Your task to perform on an android device: add a label to a message in the gmail app Image 0: 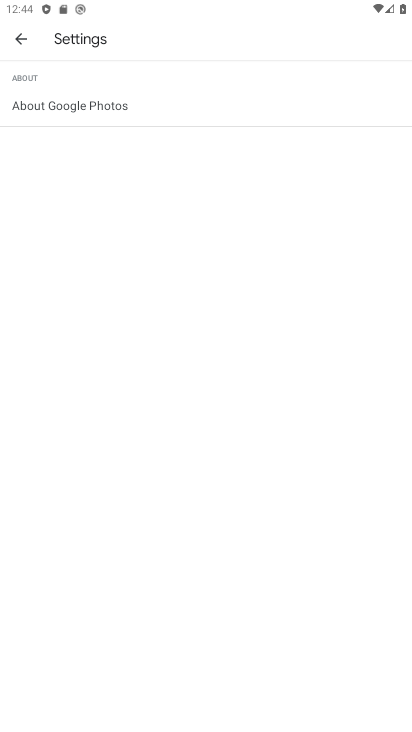
Step 0: press home button
Your task to perform on an android device: add a label to a message in the gmail app Image 1: 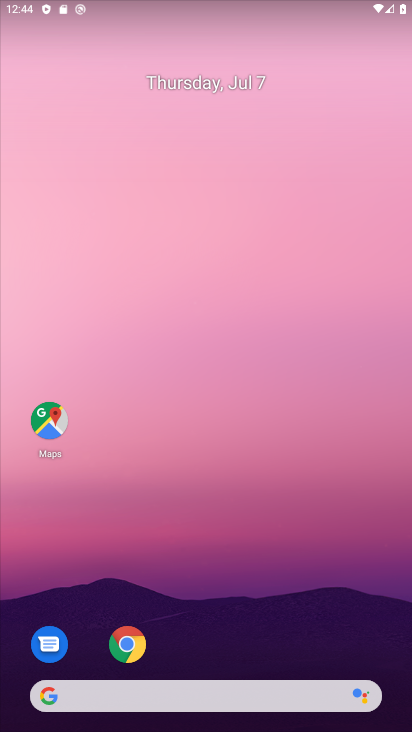
Step 1: drag from (62, 594) to (131, 279)
Your task to perform on an android device: add a label to a message in the gmail app Image 2: 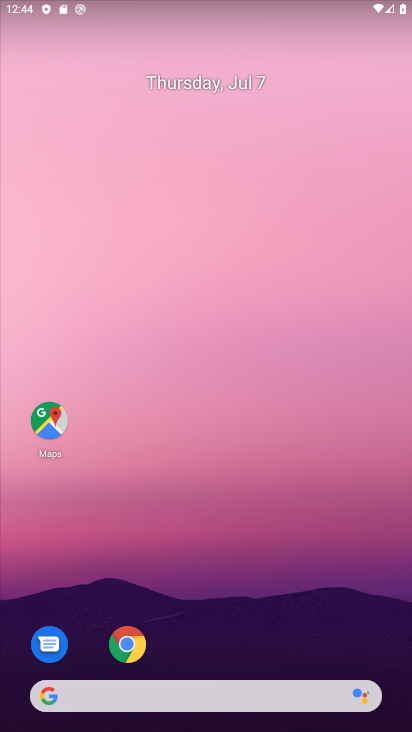
Step 2: drag from (135, 152) to (326, 2)
Your task to perform on an android device: add a label to a message in the gmail app Image 3: 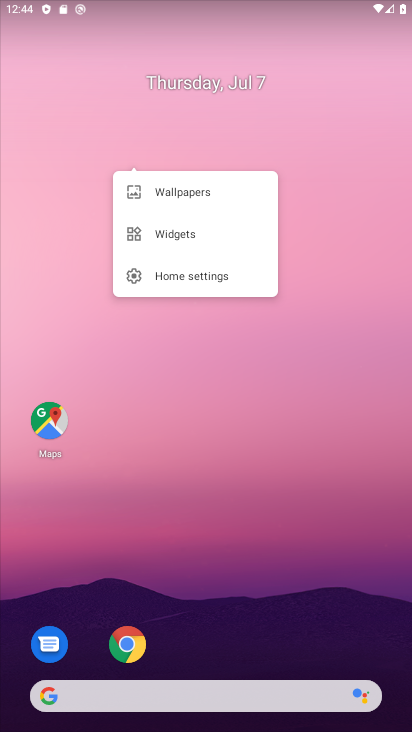
Step 3: drag from (218, 649) to (239, 9)
Your task to perform on an android device: add a label to a message in the gmail app Image 4: 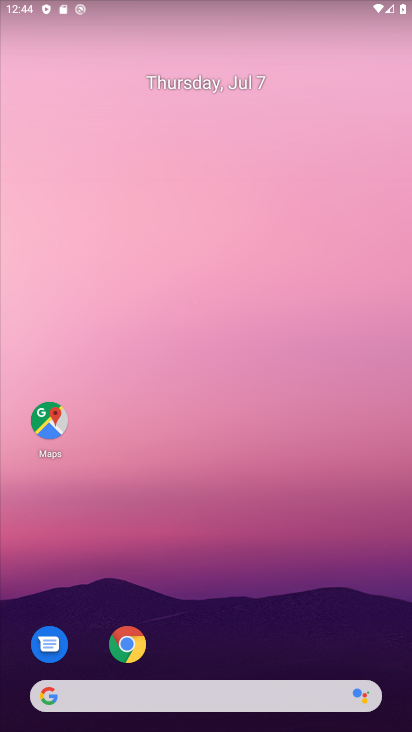
Step 4: drag from (16, 705) to (201, 0)
Your task to perform on an android device: add a label to a message in the gmail app Image 5: 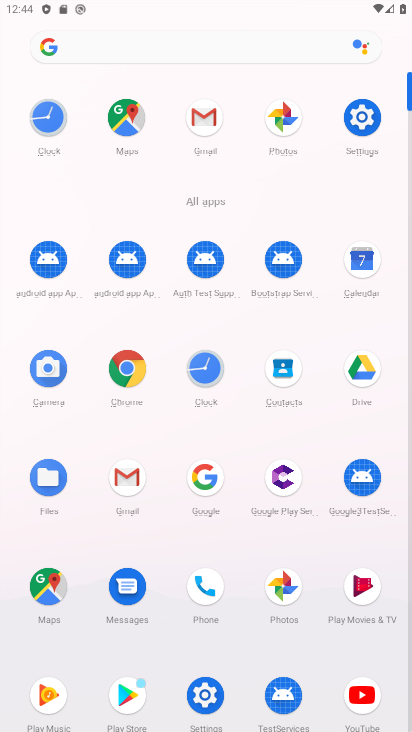
Step 5: click (192, 130)
Your task to perform on an android device: add a label to a message in the gmail app Image 6: 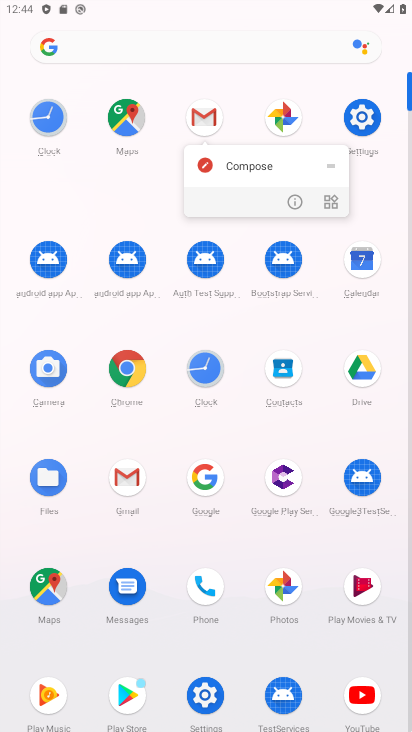
Step 6: click (200, 119)
Your task to perform on an android device: add a label to a message in the gmail app Image 7: 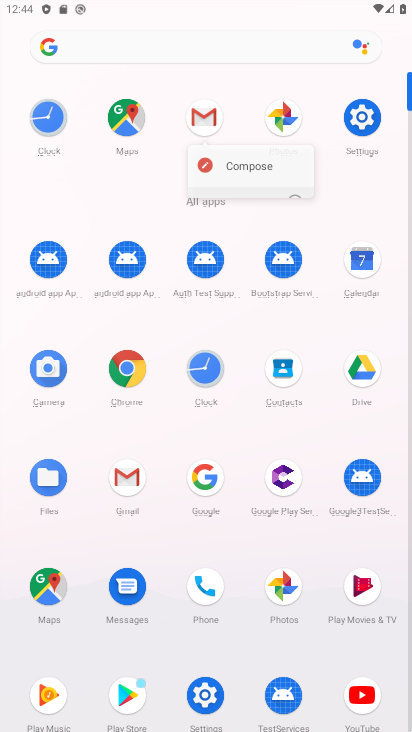
Step 7: click (200, 119)
Your task to perform on an android device: add a label to a message in the gmail app Image 8: 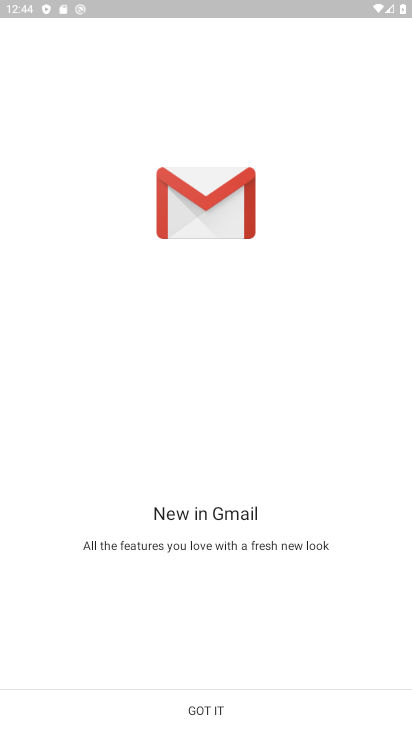
Step 8: click (196, 697)
Your task to perform on an android device: add a label to a message in the gmail app Image 9: 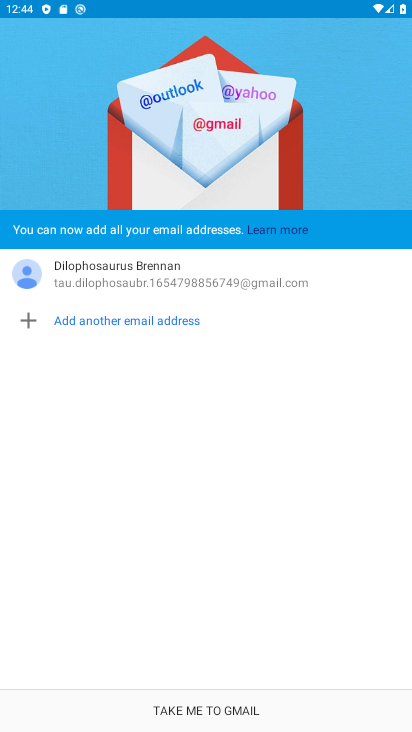
Step 9: click (205, 717)
Your task to perform on an android device: add a label to a message in the gmail app Image 10: 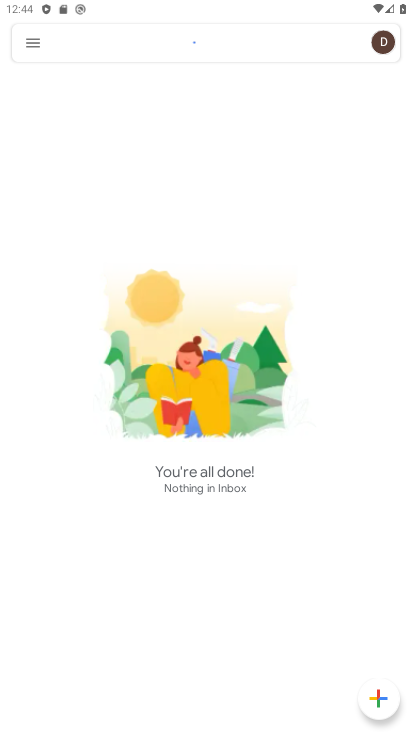
Step 10: click (29, 45)
Your task to perform on an android device: add a label to a message in the gmail app Image 11: 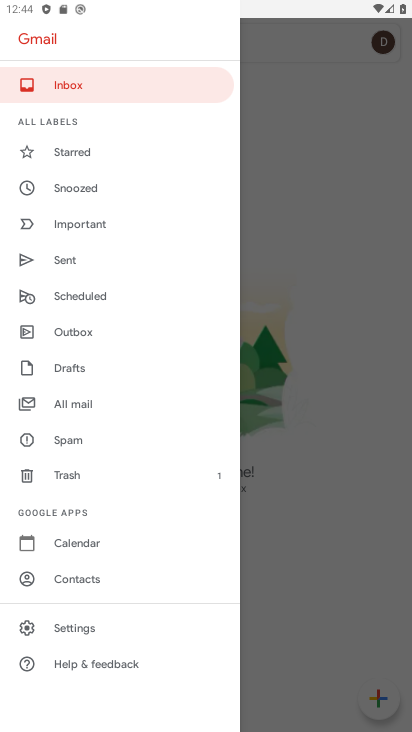
Step 11: click (90, 92)
Your task to perform on an android device: add a label to a message in the gmail app Image 12: 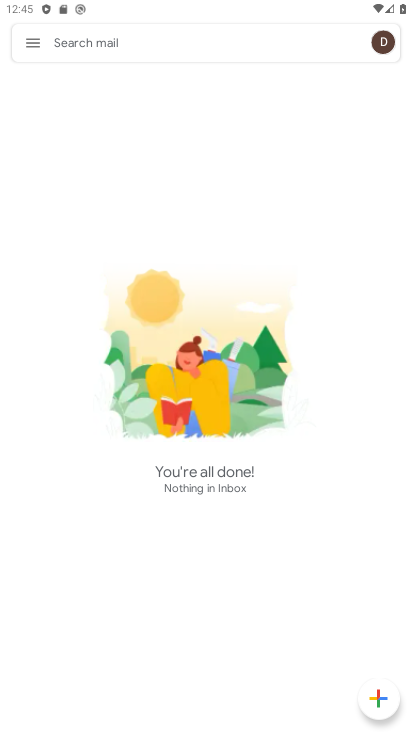
Step 12: task complete